Your task to perform on an android device: turn on wifi Image 0: 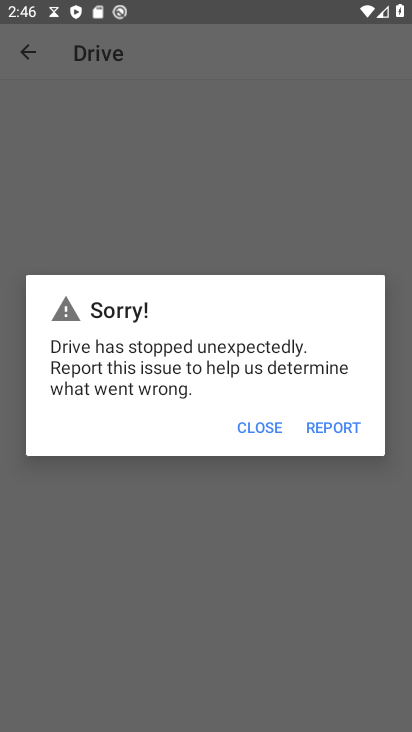
Step 0: task impossible